Your task to perform on an android device: choose inbox layout in the gmail app Image 0: 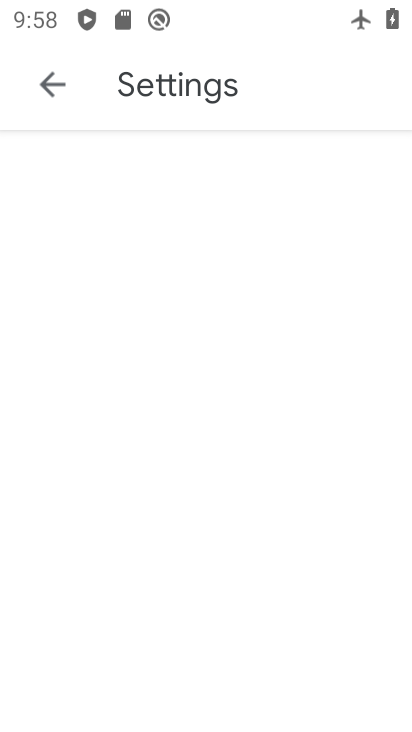
Step 0: drag from (220, 601) to (255, 350)
Your task to perform on an android device: choose inbox layout in the gmail app Image 1: 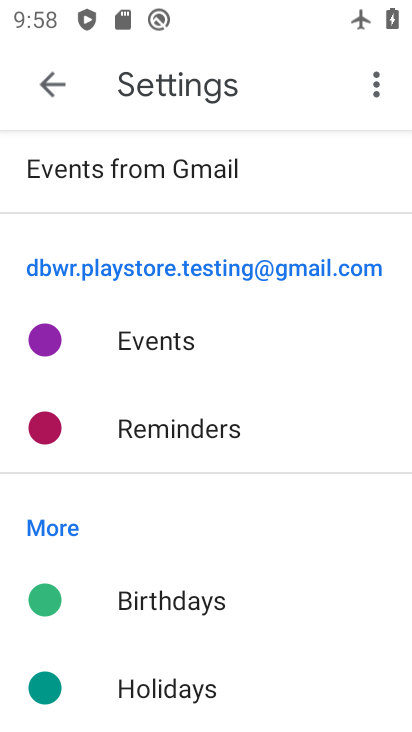
Step 1: press home button
Your task to perform on an android device: choose inbox layout in the gmail app Image 2: 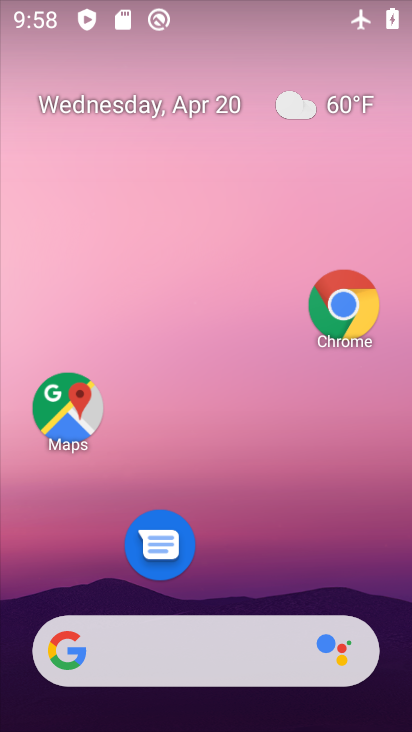
Step 2: drag from (235, 645) to (292, 252)
Your task to perform on an android device: choose inbox layout in the gmail app Image 3: 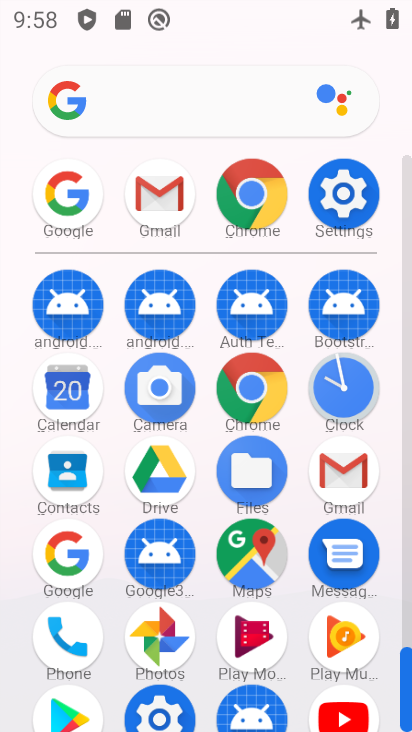
Step 3: click (334, 478)
Your task to perform on an android device: choose inbox layout in the gmail app Image 4: 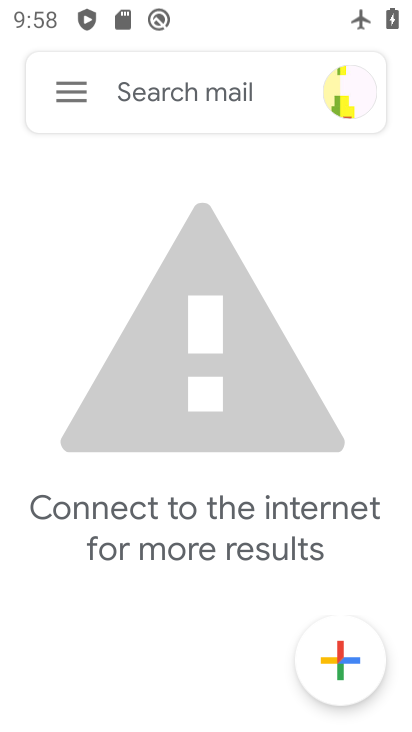
Step 4: click (84, 121)
Your task to perform on an android device: choose inbox layout in the gmail app Image 5: 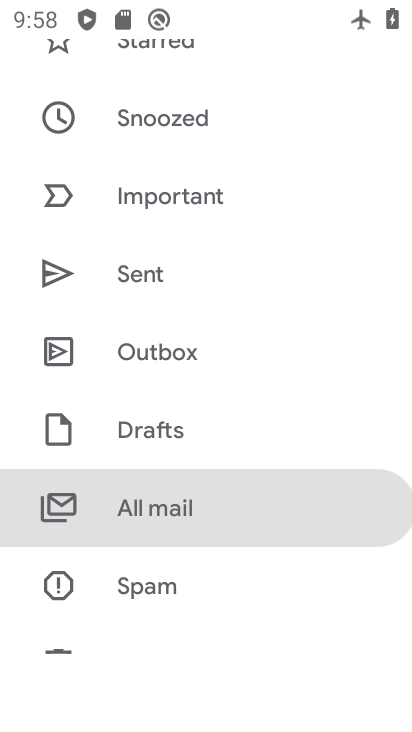
Step 5: drag from (159, 478) to (195, 232)
Your task to perform on an android device: choose inbox layout in the gmail app Image 6: 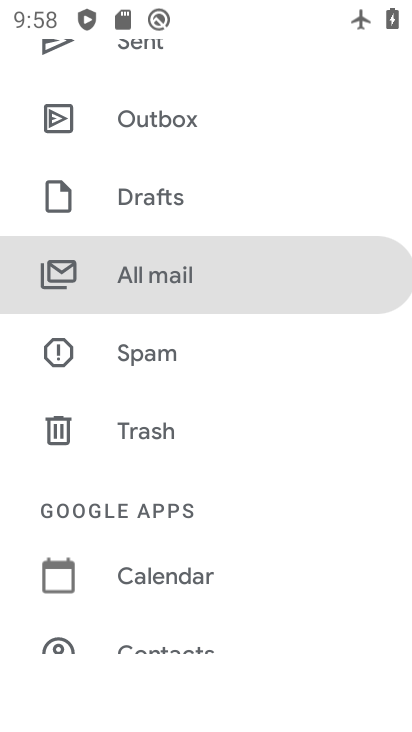
Step 6: drag from (195, 463) to (209, 277)
Your task to perform on an android device: choose inbox layout in the gmail app Image 7: 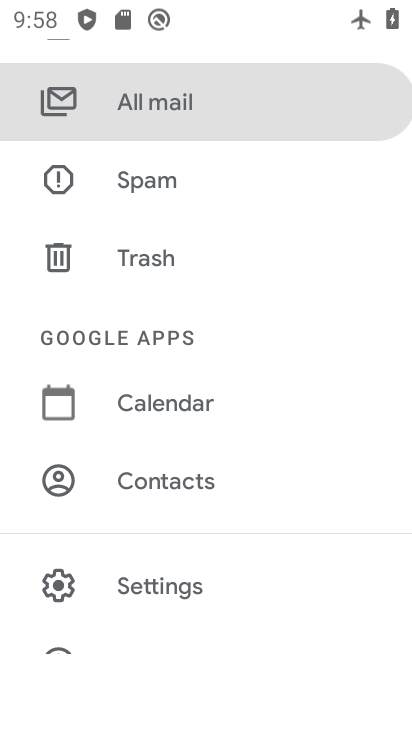
Step 7: click (155, 587)
Your task to perform on an android device: choose inbox layout in the gmail app Image 8: 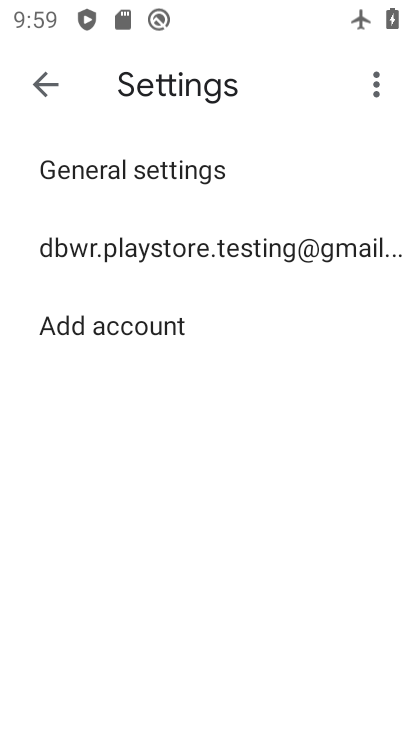
Step 8: task complete